Your task to perform on an android device: delete a single message in the gmail app Image 0: 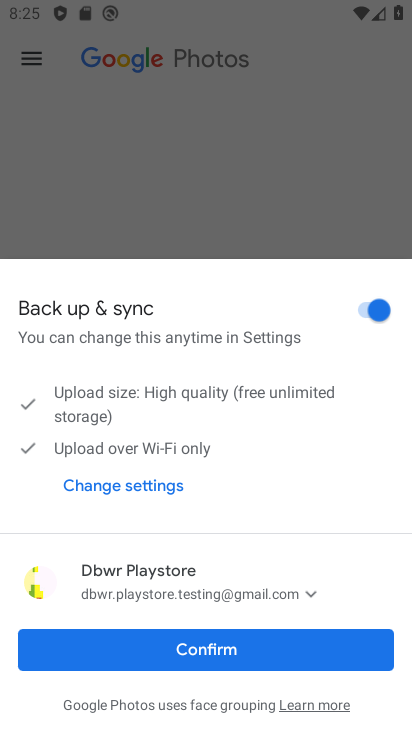
Step 0: press home button
Your task to perform on an android device: delete a single message in the gmail app Image 1: 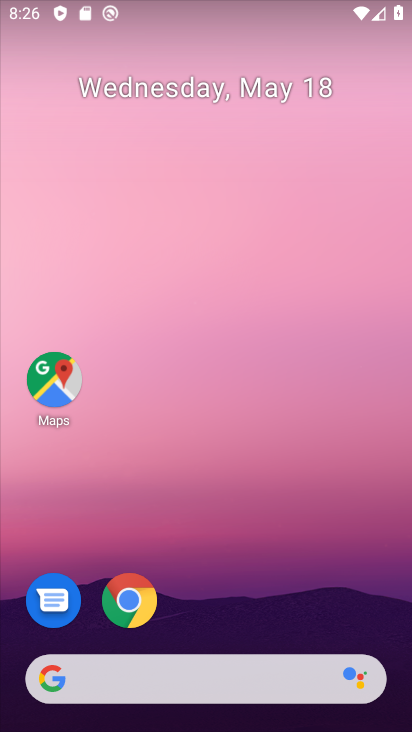
Step 1: drag from (11, 524) to (151, 209)
Your task to perform on an android device: delete a single message in the gmail app Image 2: 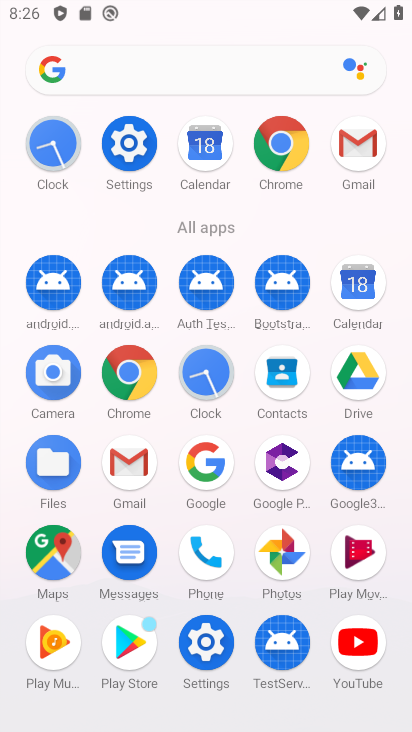
Step 2: click (357, 154)
Your task to perform on an android device: delete a single message in the gmail app Image 3: 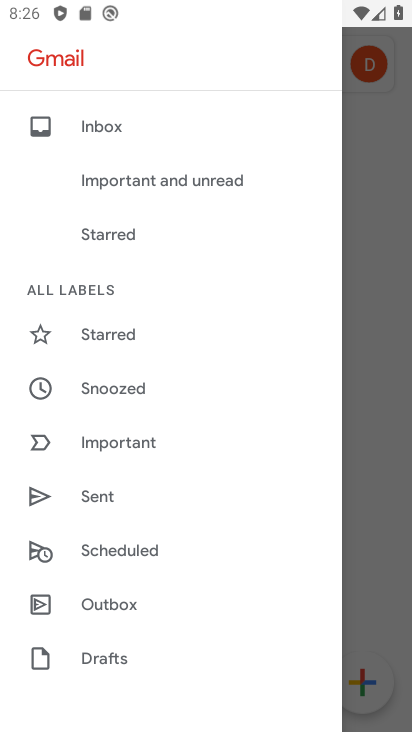
Step 3: drag from (85, 588) to (251, 168)
Your task to perform on an android device: delete a single message in the gmail app Image 4: 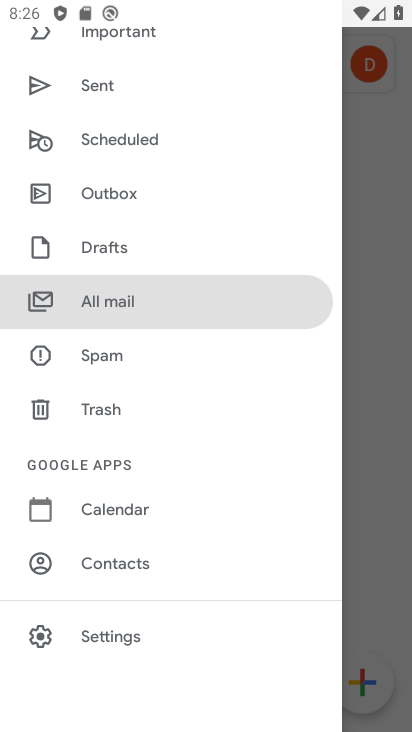
Step 4: click (161, 306)
Your task to perform on an android device: delete a single message in the gmail app Image 5: 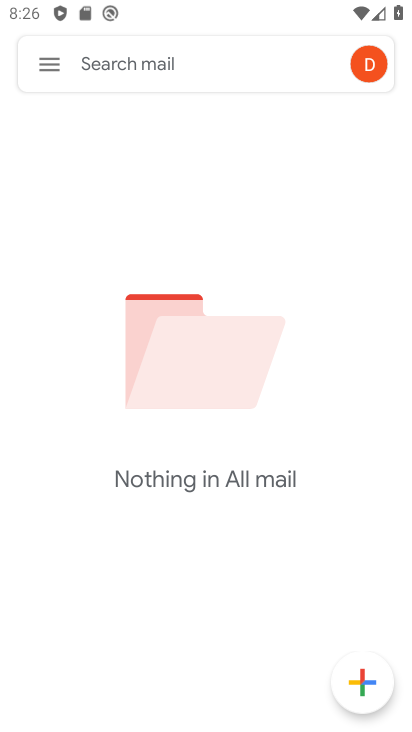
Step 5: task complete